Your task to perform on an android device: Open Google Chrome and open the bookmarks view Image 0: 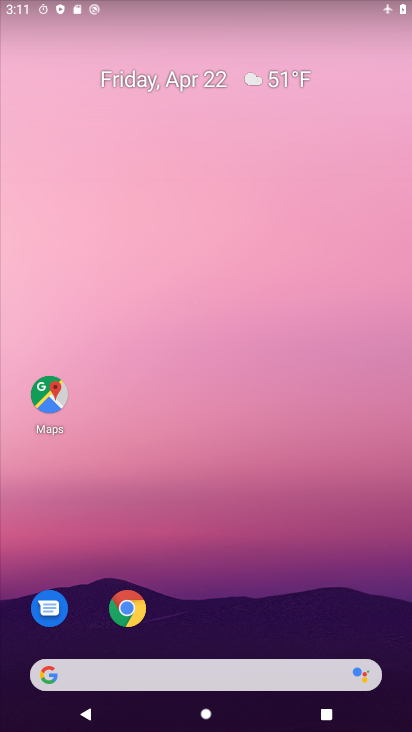
Step 0: click (128, 603)
Your task to perform on an android device: Open Google Chrome and open the bookmarks view Image 1: 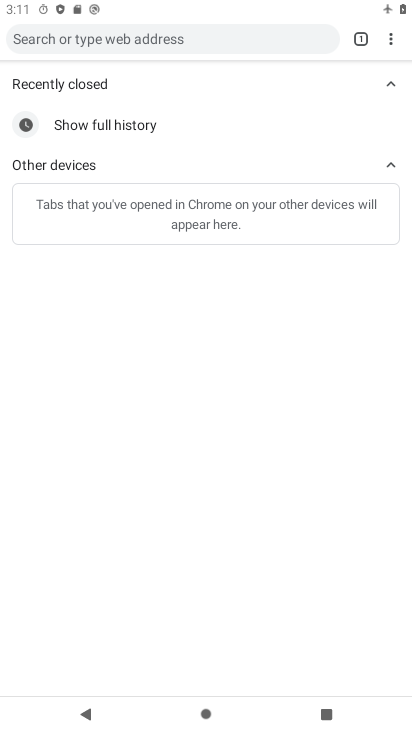
Step 1: click (393, 37)
Your task to perform on an android device: Open Google Chrome and open the bookmarks view Image 2: 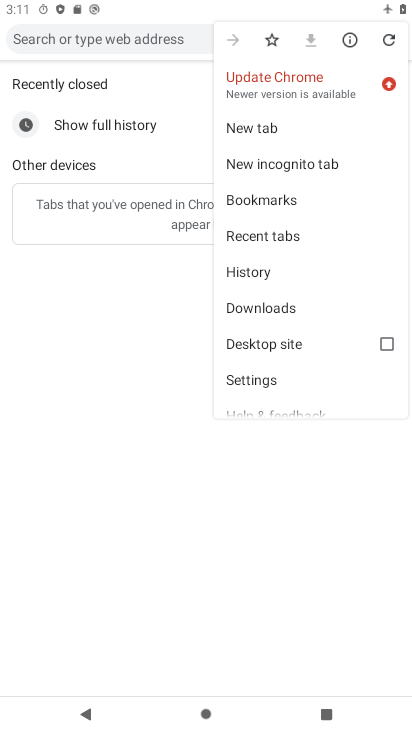
Step 2: click (282, 202)
Your task to perform on an android device: Open Google Chrome and open the bookmarks view Image 3: 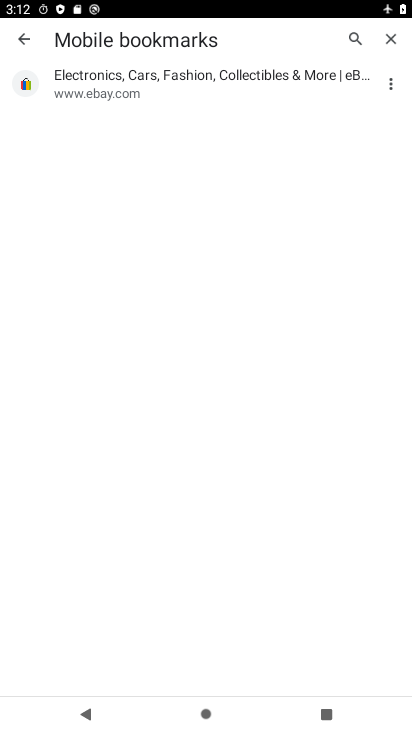
Step 3: task complete